Your task to perform on an android device: search for starred emails in the gmail app Image 0: 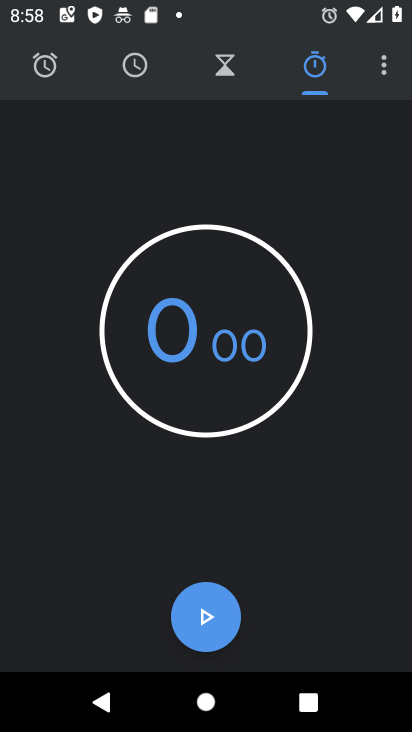
Step 0: press home button
Your task to perform on an android device: search for starred emails in the gmail app Image 1: 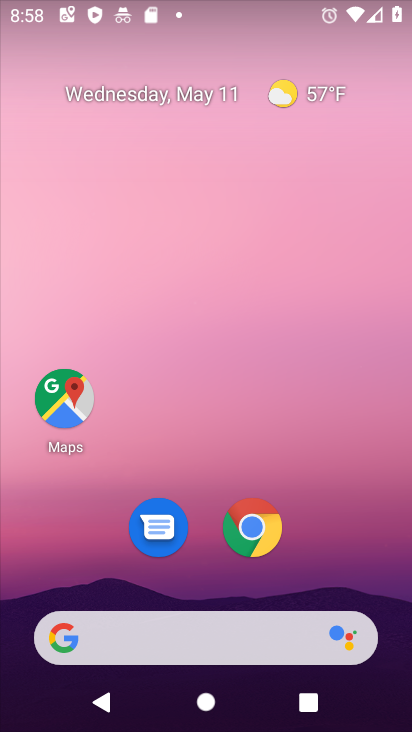
Step 1: drag from (371, 504) to (361, 3)
Your task to perform on an android device: search for starred emails in the gmail app Image 2: 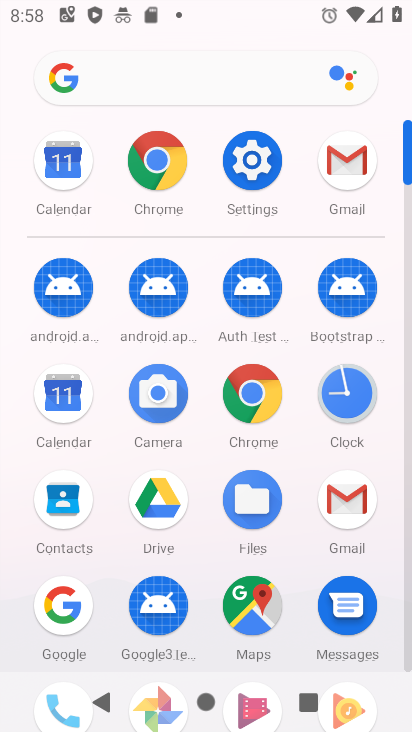
Step 2: click (332, 165)
Your task to perform on an android device: search for starred emails in the gmail app Image 3: 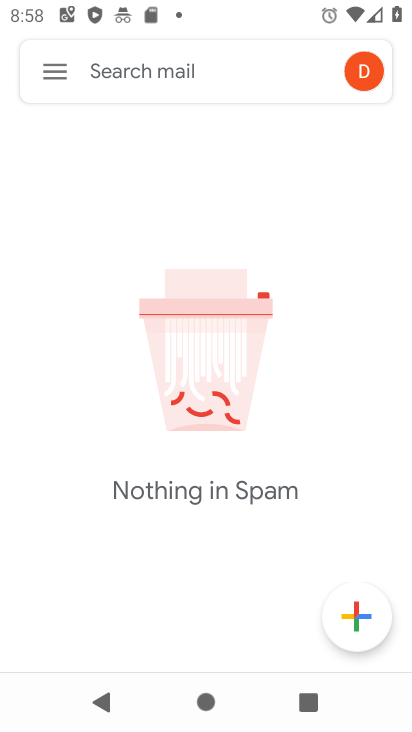
Step 3: click (55, 76)
Your task to perform on an android device: search for starred emails in the gmail app Image 4: 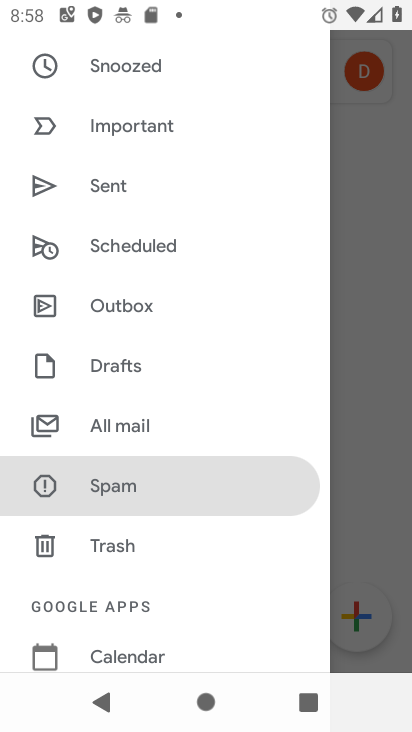
Step 4: drag from (209, 209) to (216, 406)
Your task to perform on an android device: search for starred emails in the gmail app Image 5: 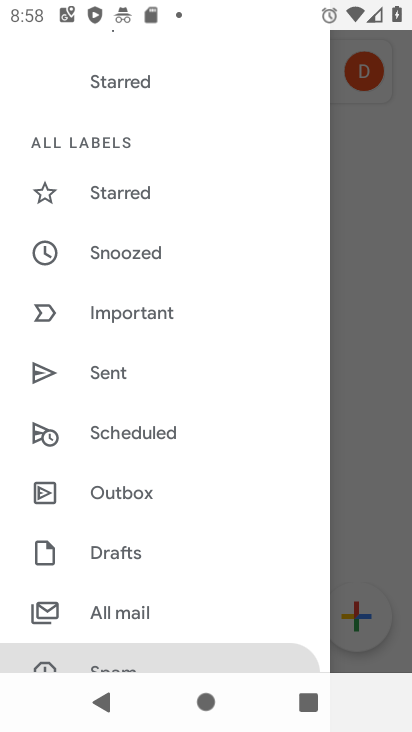
Step 5: click (138, 199)
Your task to perform on an android device: search for starred emails in the gmail app Image 6: 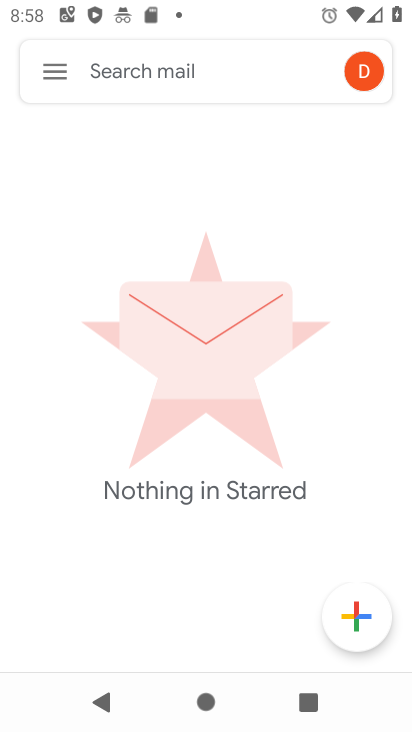
Step 6: task complete